Your task to perform on an android device: Open Yahoo.com Image 0: 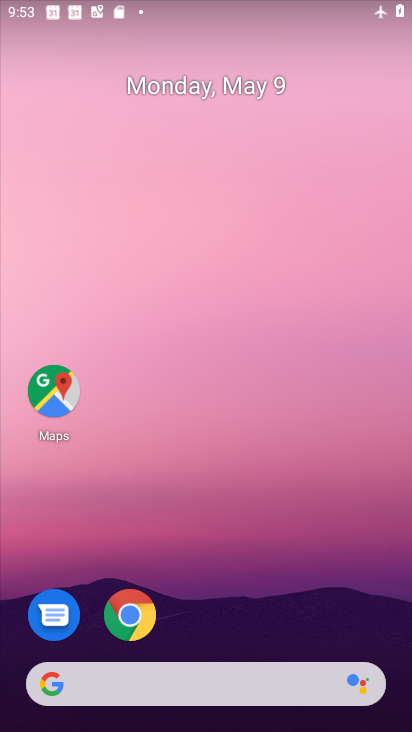
Step 0: drag from (308, 716) to (270, 209)
Your task to perform on an android device: Open Yahoo.com Image 1: 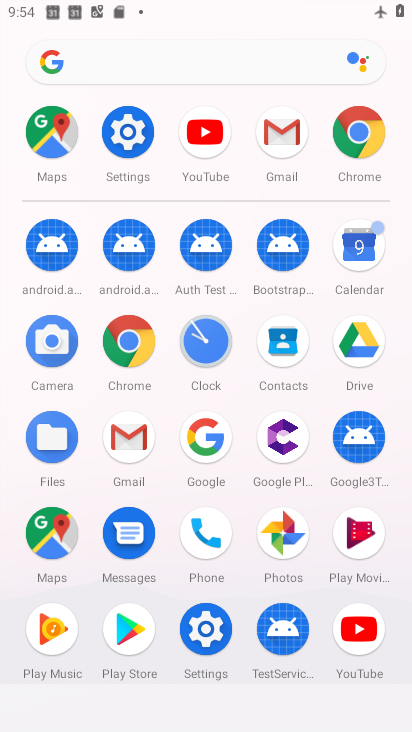
Step 1: click (368, 124)
Your task to perform on an android device: Open Yahoo.com Image 2: 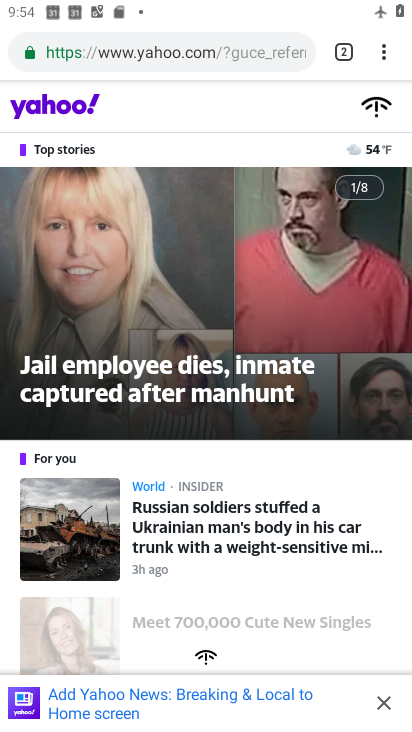
Step 2: task complete